Your task to perform on an android device: Turn on the flashlight Image 0: 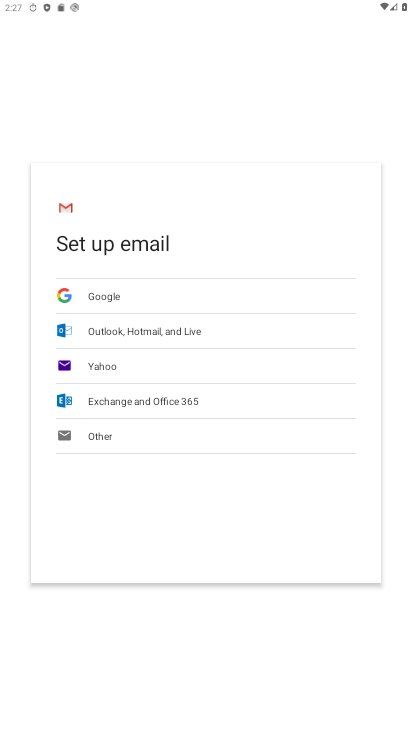
Step 0: press home button
Your task to perform on an android device: Turn on the flashlight Image 1: 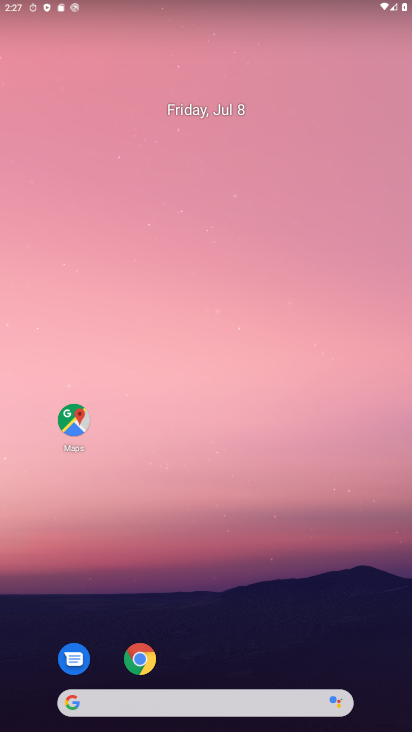
Step 1: click (277, 95)
Your task to perform on an android device: Turn on the flashlight Image 2: 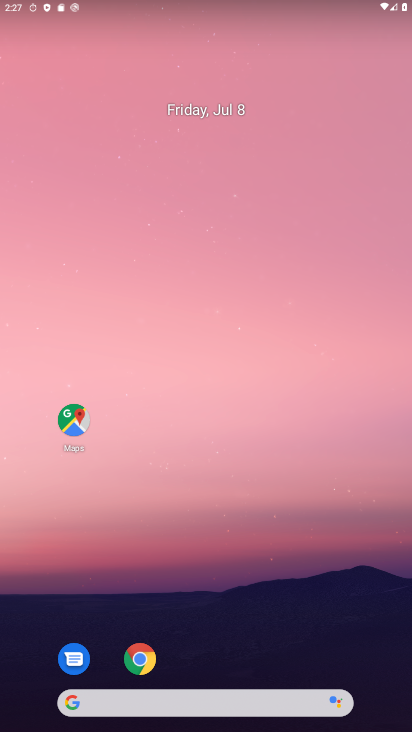
Step 2: drag from (256, 565) to (284, 161)
Your task to perform on an android device: Turn on the flashlight Image 3: 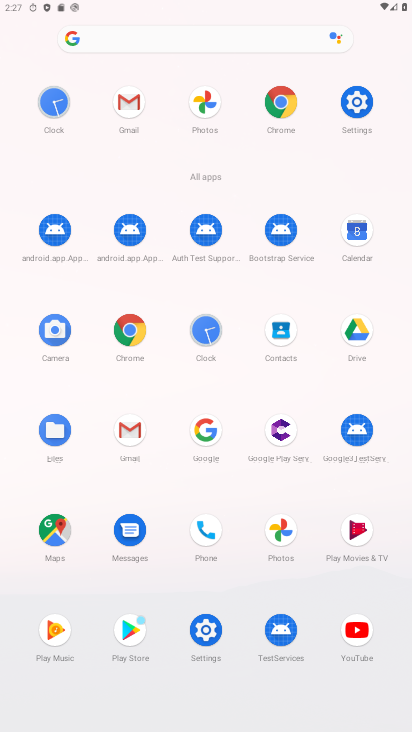
Step 3: click (345, 102)
Your task to perform on an android device: Turn on the flashlight Image 4: 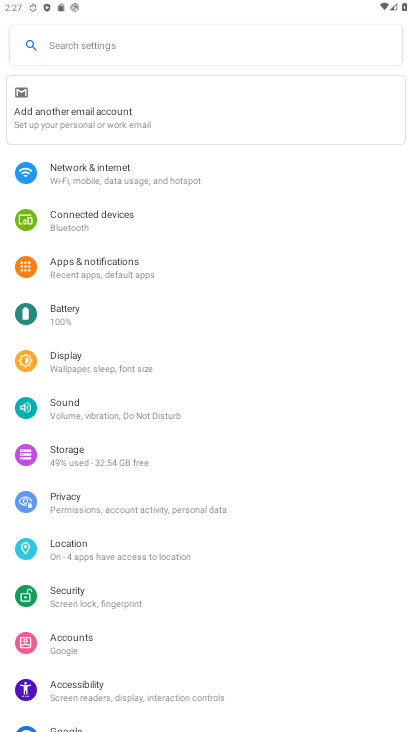
Step 4: task complete